Your task to perform on an android device: check google app version Image 0: 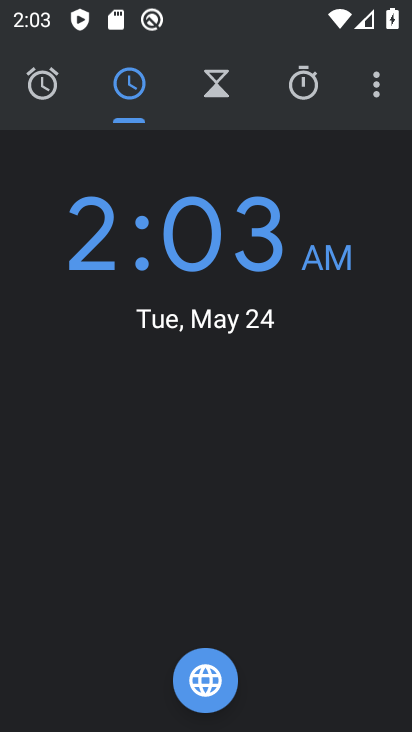
Step 0: press home button
Your task to perform on an android device: check google app version Image 1: 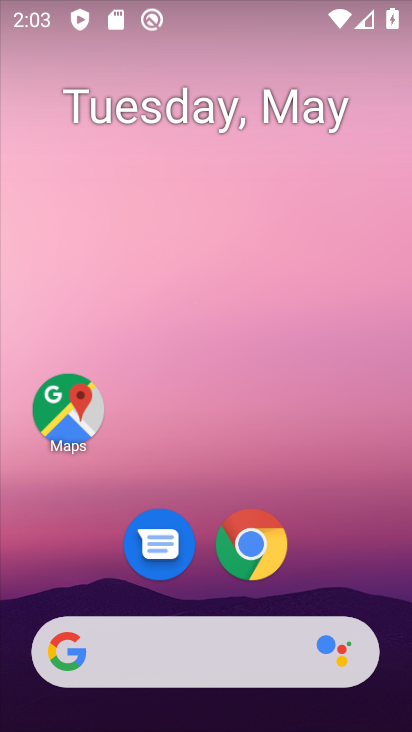
Step 1: drag from (72, 606) to (191, 130)
Your task to perform on an android device: check google app version Image 2: 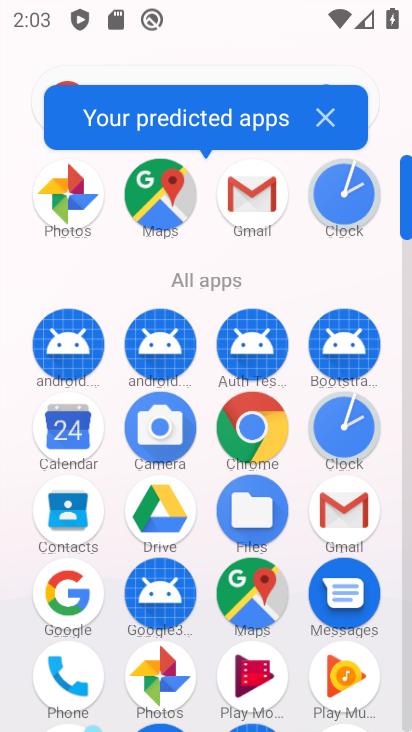
Step 2: drag from (190, 646) to (245, 385)
Your task to perform on an android device: check google app version Image 3: 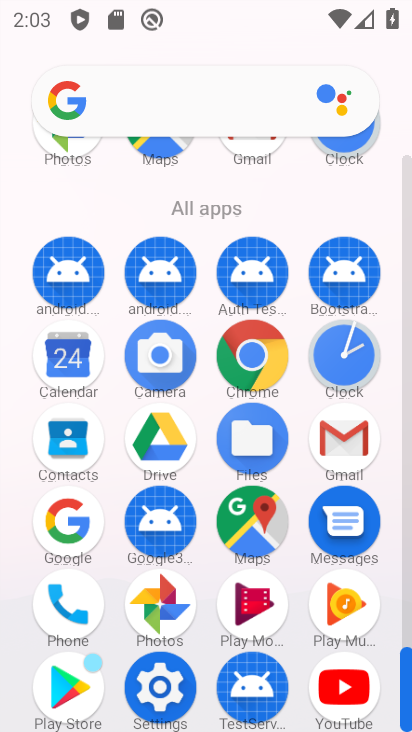
Step 3: click (174, 706)
Your task to perform on an android device: check google app version Image 4: 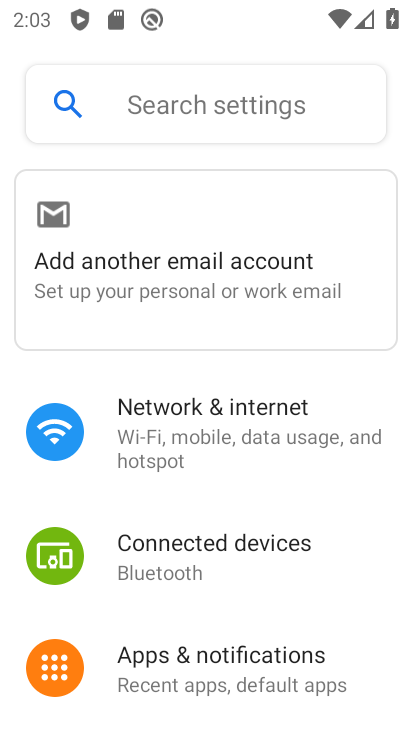
Step 4: drag from (183, 645) to (235, 322)
Your task to perform on an android device: check google app version Image 5: 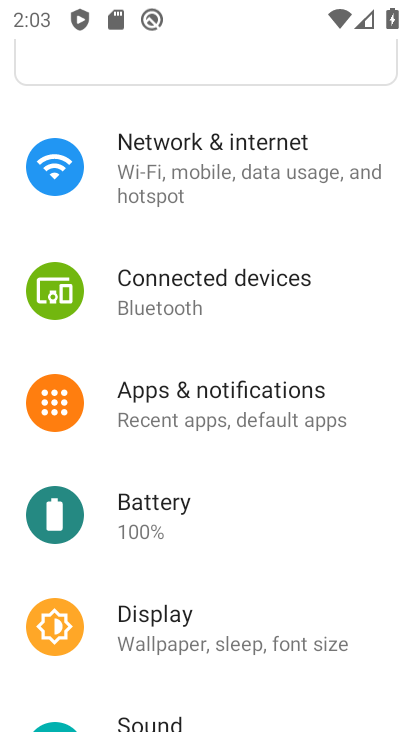
Step 5: click (239, 420)
Your task to perform on an android device: check google app version Image 6: 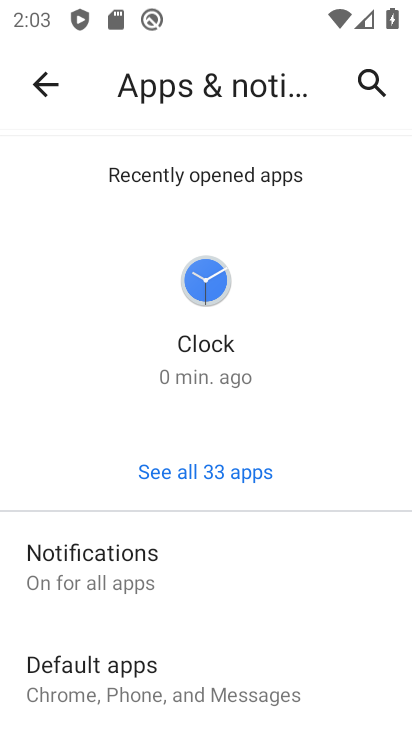
Step 6: click (229, 471)
Your task to perform on an android device: check google app version Image 7: 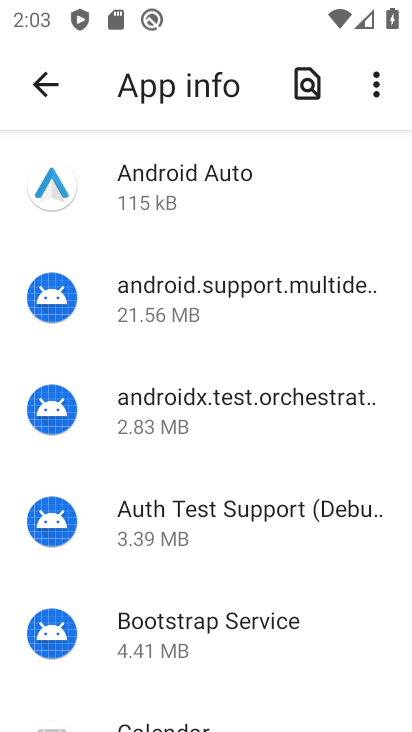
Step 7: drag from (170, 632) to (320, 5)
Your task to perform on an android device: check google app version Image 8: 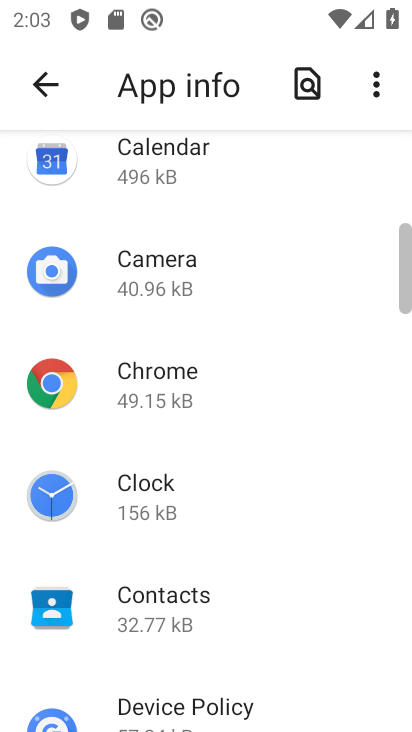
Step 8: drag from (181, 654) to (304, 99)
Your task to perform on an android device: check google app version Image 9: 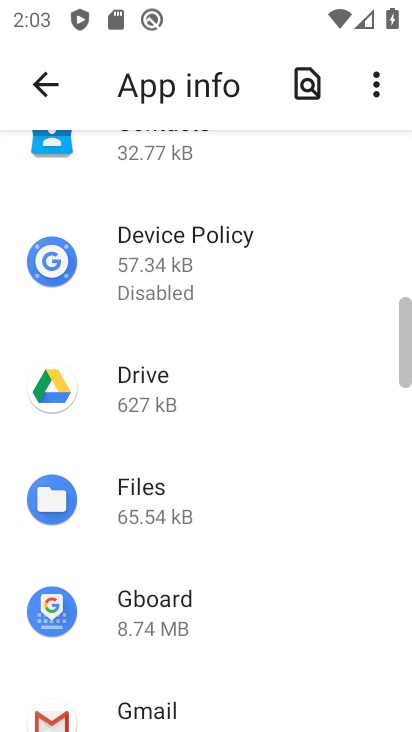
Step 9: drag from (182, 624) to (288, 233)
Your task to perform on an android device: check google app version Image 10: 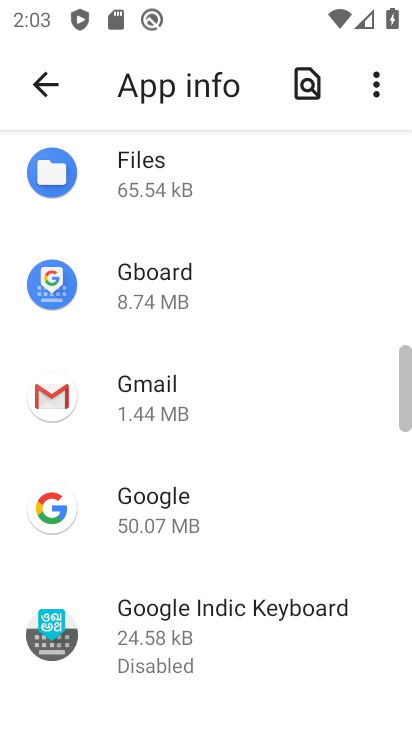
Step 10: click (129, 514)
Your task to perform on an android device: check google app version Image 11: 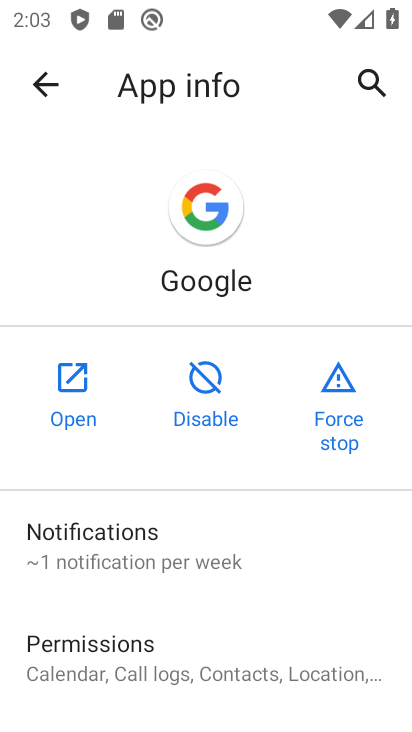
Step 11: drag from (188, 637) to (290, 216)
Your task to perform on an android device: check google app version Image 12: 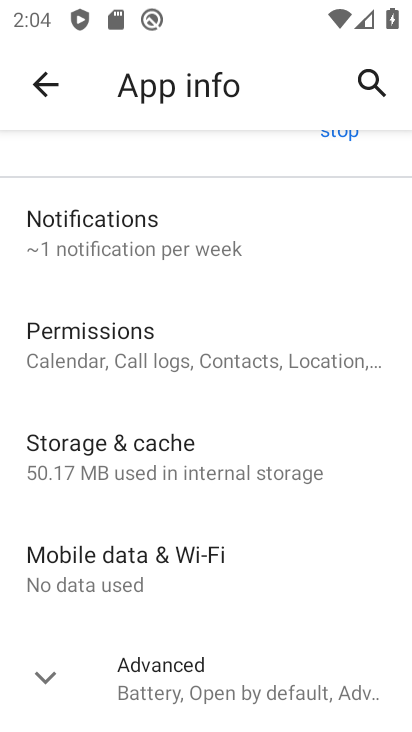
Step 12: click (178, 703)
Your task to perform on an android device: check google app version Image 13: 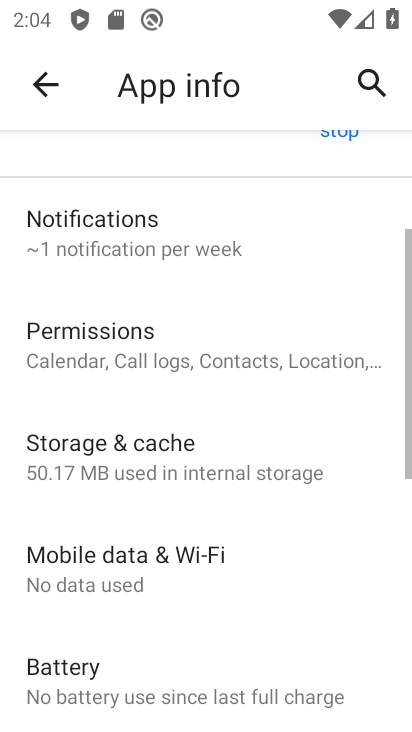
Step 13: task complete